Your task to perform on an android device: clear history in the chrome app Image 0: 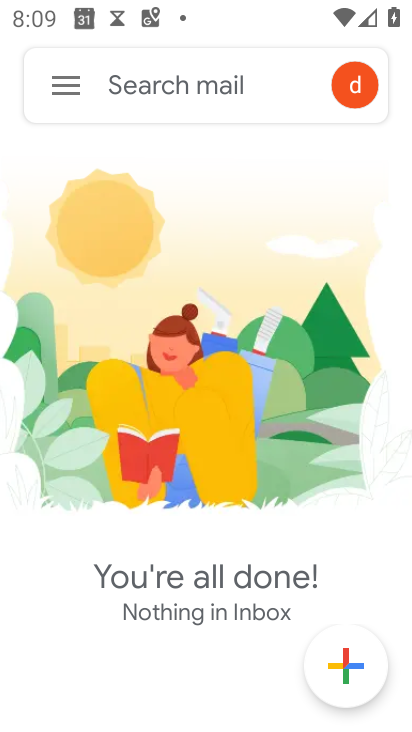
Step 0: press back button
Your task to perform on an android device: clear history in the chrome app Image 1: 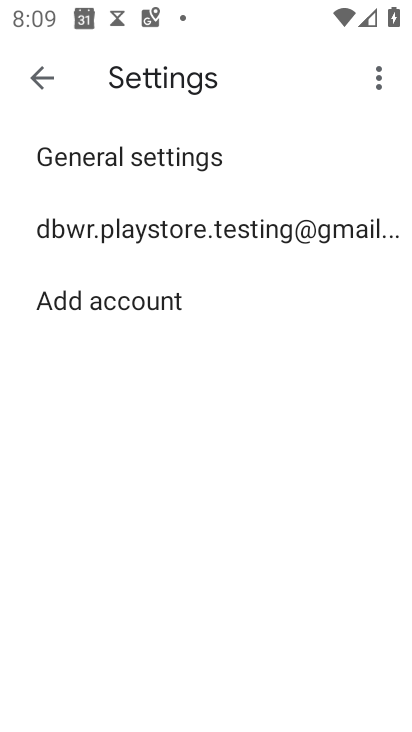
Step 1: click (36, 78)
Your task to perform on an android device: clear history in the chrome app Image 2: 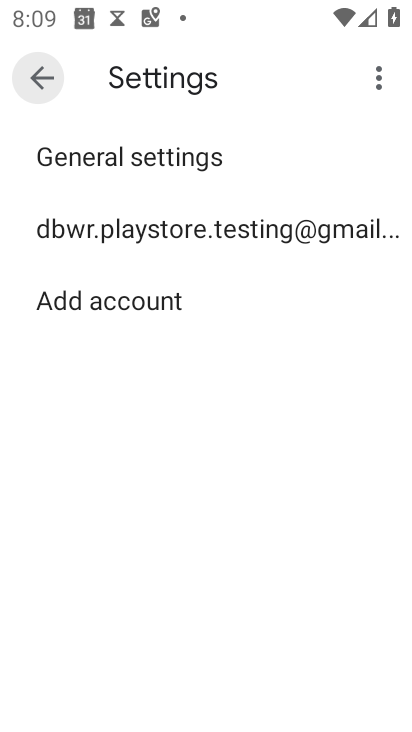
Step 2: click (38, 79)
Your task to perform on an android device: clear history in the chrome app Image 3: 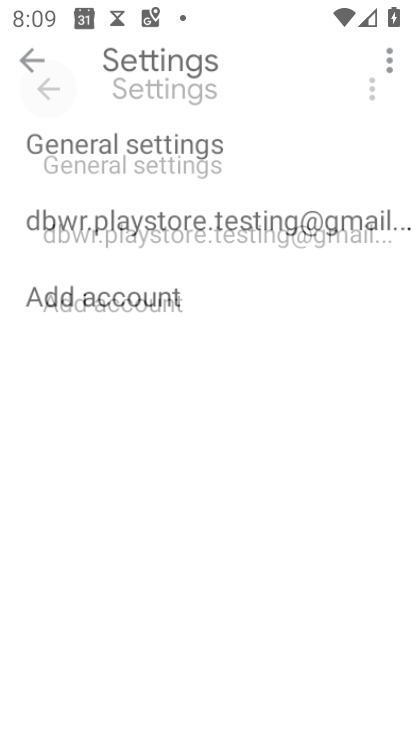
Step 3: click (40, 79)
Your task to perform on an android device: clear history in the chrome app Image 4: 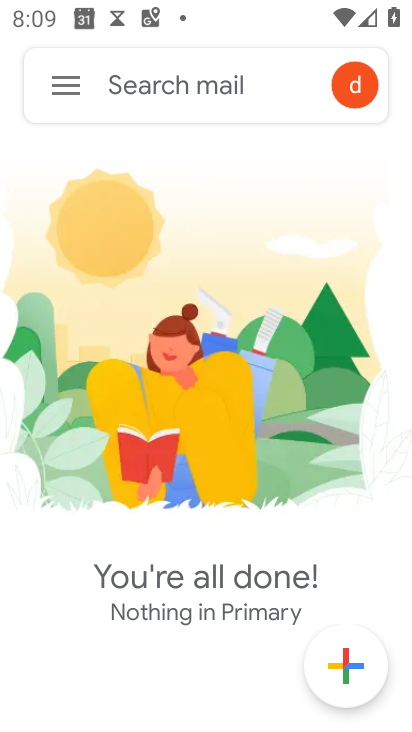
Step 4: press home button
Your task to perform on an android device: clear history in the chrome app Image 5: 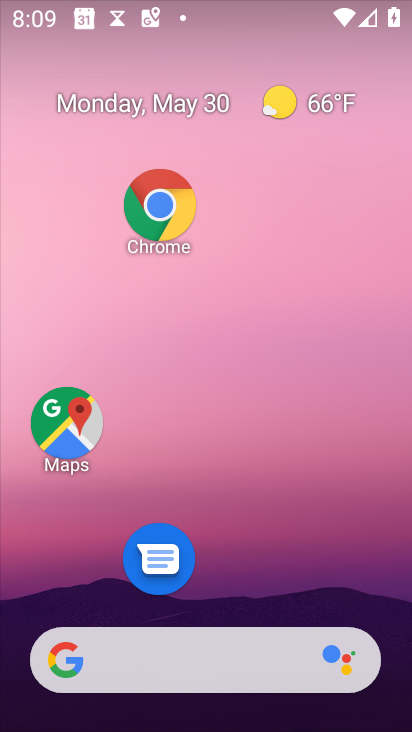
Step 5: drag from (233, 717) to (122, 100)
Your task to perform on an android device: clear history in the chrome app Image 6: 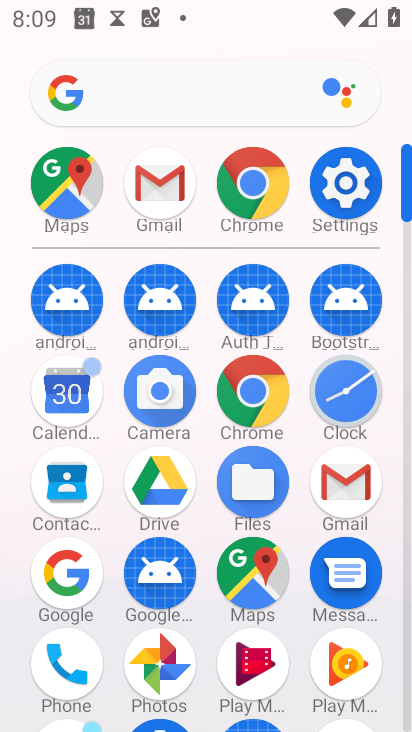
Step 6: click (250, 174)
Your task to perform on an android device: clear history in the chrome app Image 7: 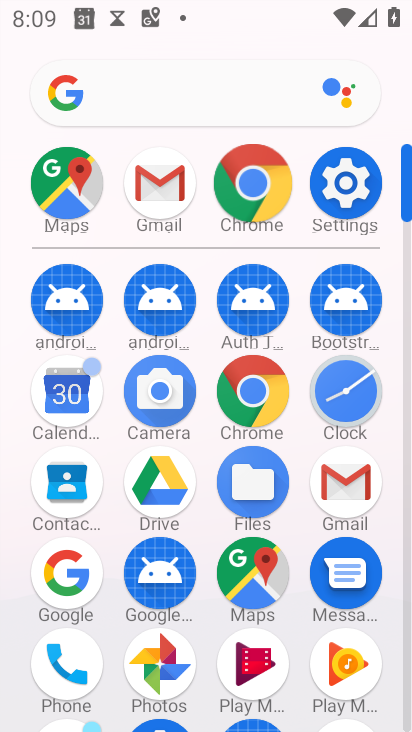
Step 7: click (250, 174)
Your task to perform on an android device: clear history in the chrome app Image 8: 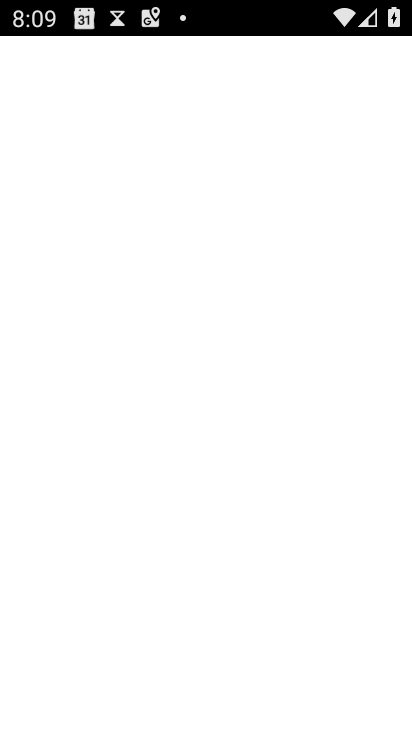
Step 8: click (251, 175)
Your task to perform on an android device: clear history in the chrome app Image 9: 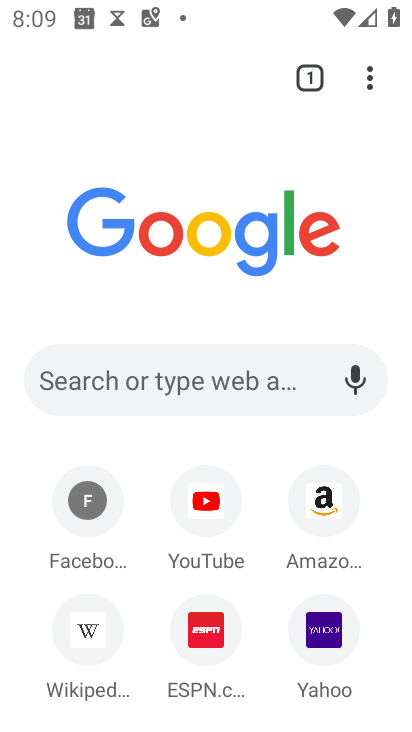
Step 9: click (371, 72)
Your task to perform on an android device: clear history in the chrome app Image 10: 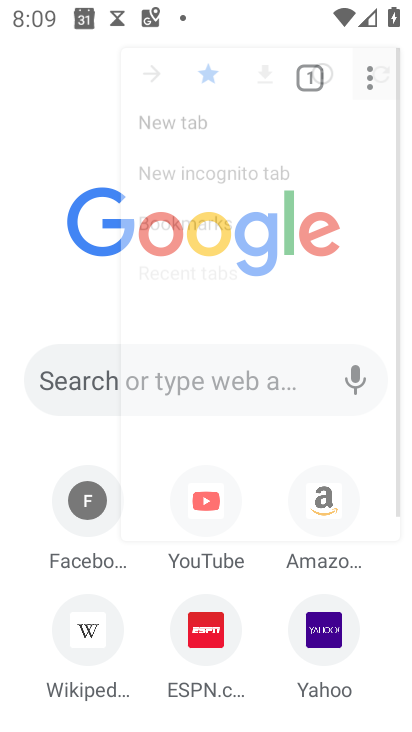
Step 10: click (372, 75)
Your task to perform on an android device: clear history in the chrome app Image 11: 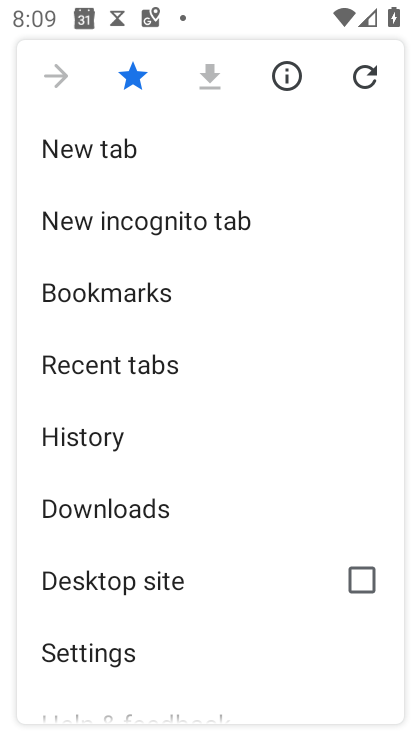
Step 11: click (76, 433)
Your task to perform on an android device: clear history in the chrome app Image 12: 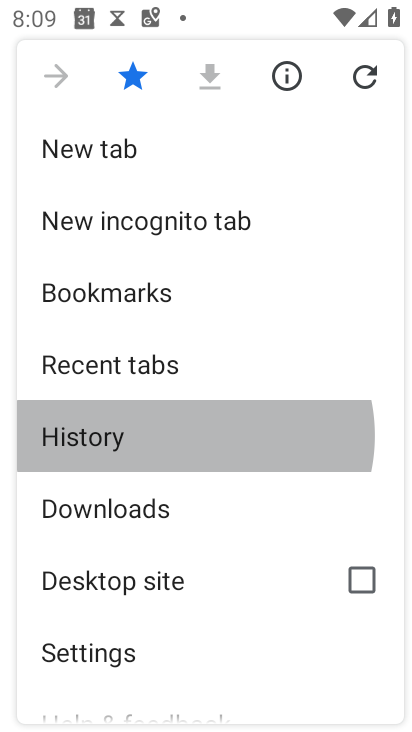
Step 12: click (78, 434)
Your task to perform on an android device: clear history in the chrome app Image 13: 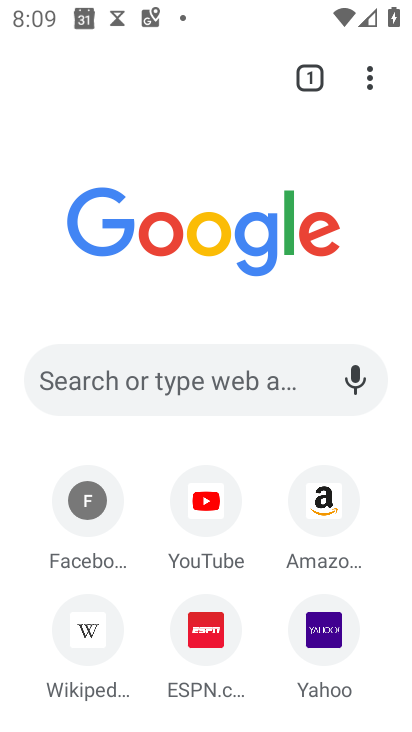
Step 13: click (79, 433)
Your task to perform on an android device: clear history in the chrome app Image 14: 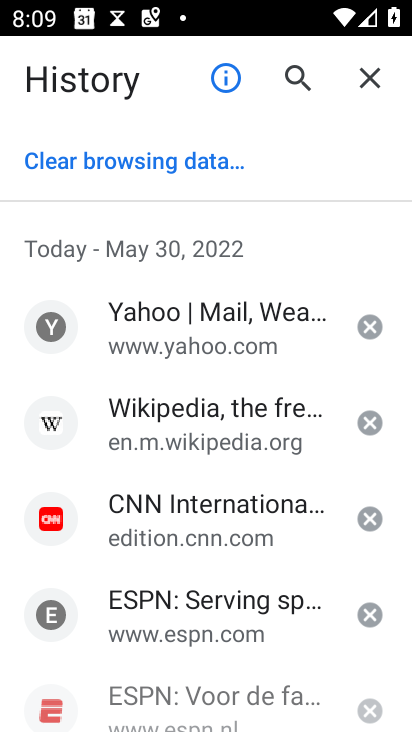
Step 14: click (80, 434)
Your task to perform on an android device: clear history in the chrome app Image 15: 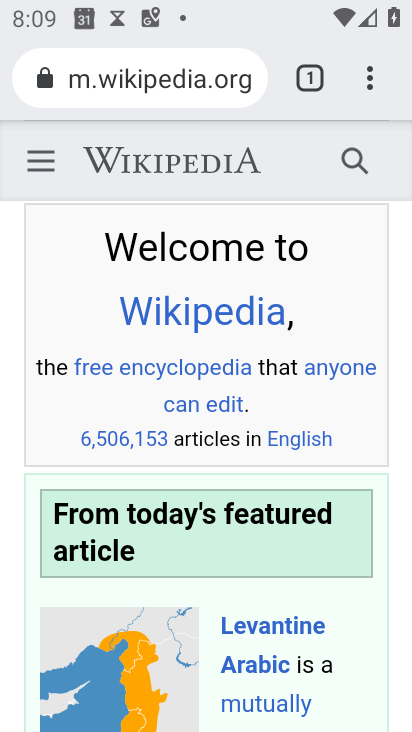
Step 15: drag from (366, 85) to (85, 448)
Your task to perform on an android device: clear history in the chrome app Image 16: 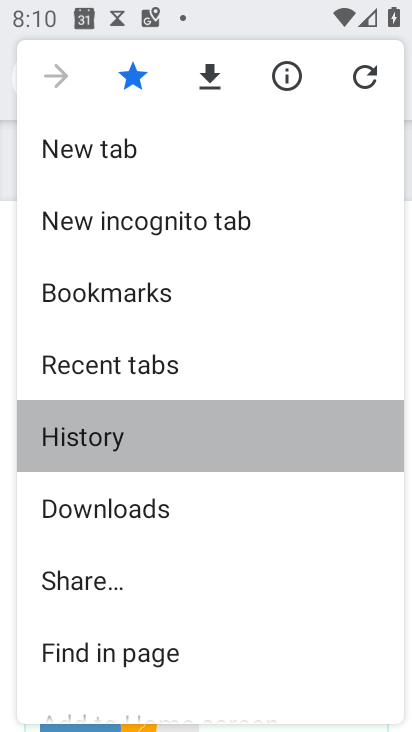
Step 16: click (86, 448)
Your task to perform on an android device: clear history in the chrome app Image 17: 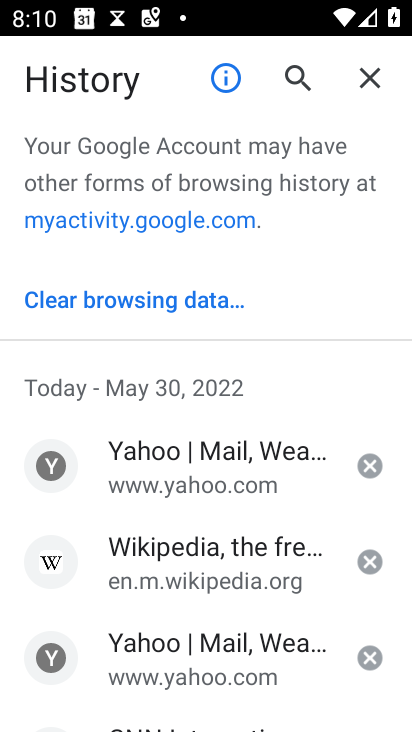
Step 17: click (140, 299)
Your task to perform on an android device: clear history in the chrome app Image 18: 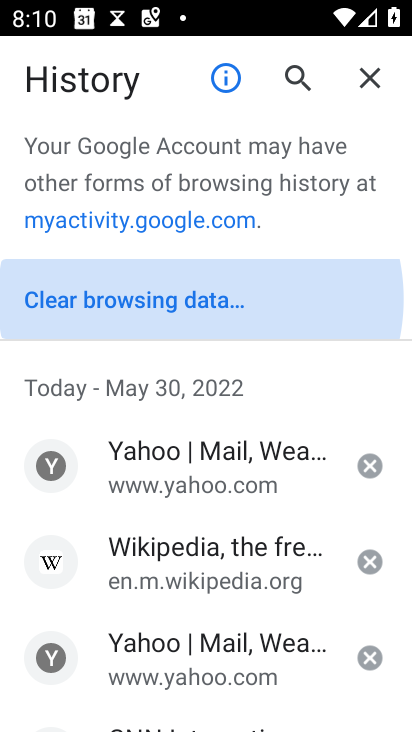
Step 18: click (139, 296)
Your task to perform on an android device: clear history in the chrome app Image 19: 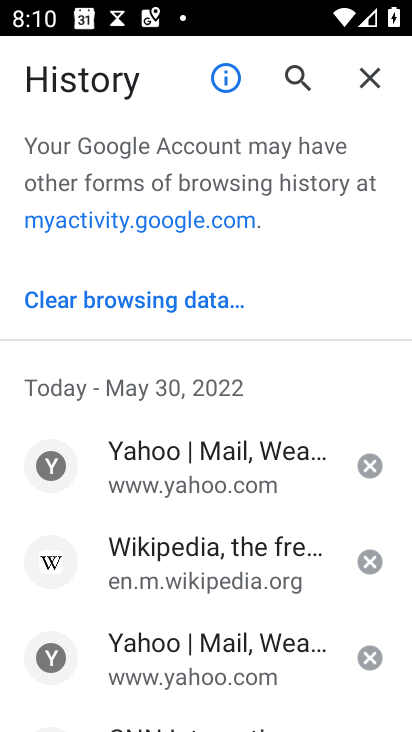
Step 19: click (139, 296)
Your task to perform on an android device: clear history in the chrome app Image 20: 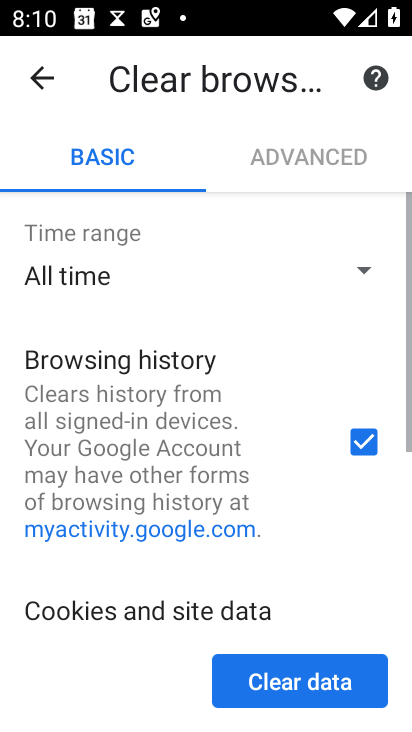
Step 20: click (310, 687)
Your task to perform on an android device: clear history in the chrome app Image 21: 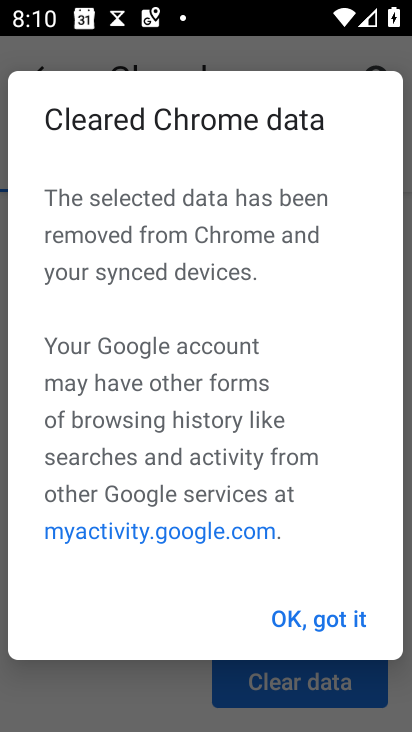
Step 21: click (326, 623)
Your task to perform on an android device: clear history in the chrome app Image 22: 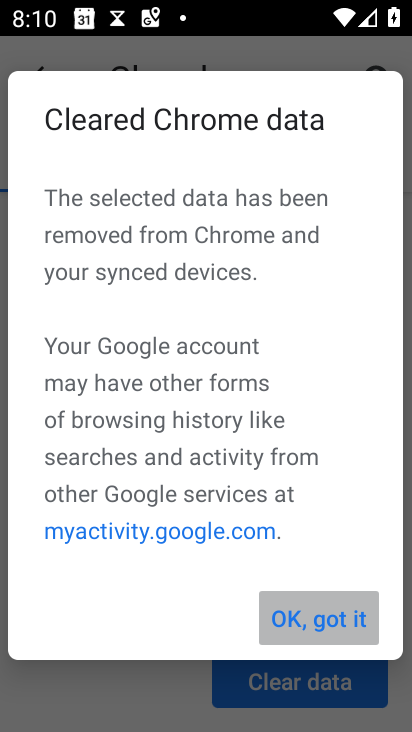
Step 22: click (309, 631)
Your task to perform on an android device: clear history in the chrome app Image 23: 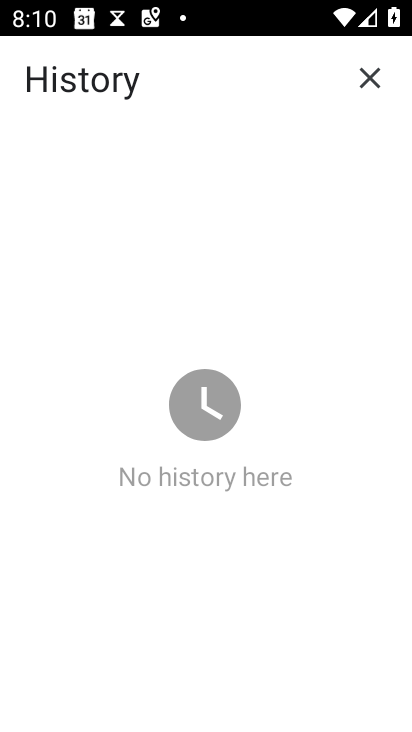
Step 23: task complete